Your task to perform on an android device: What's on my calendar today? Image 0: 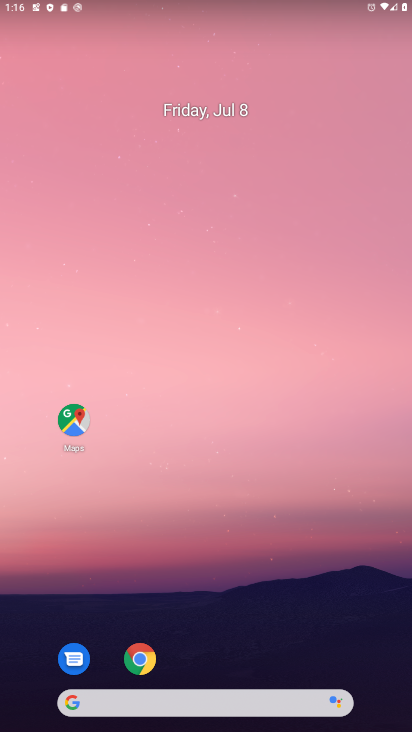
Step 0: drag from (275, 575) to (207, 226)
Your task to perform on an android device: What's on my calendar today? Image 1: 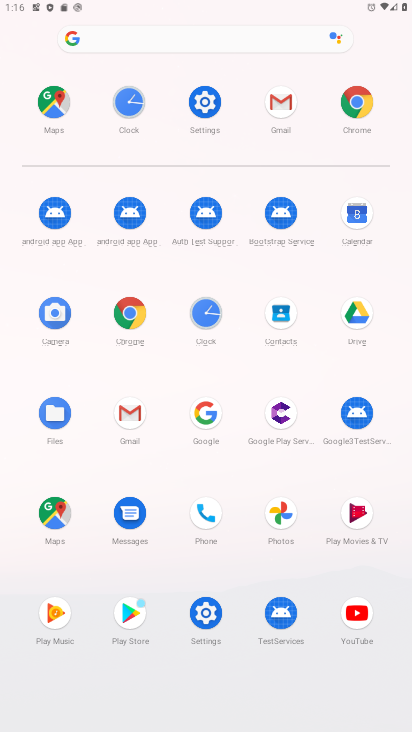
Step 1: click (352, 214)
Your task to perform on an android device: What's on my calendar today? Image 2: 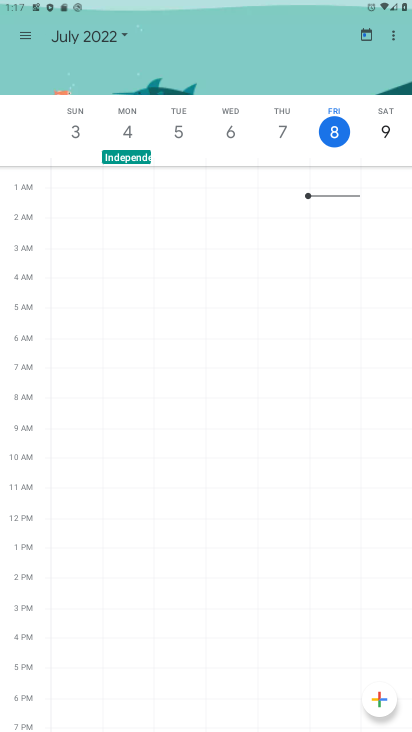
Step 2: click (341, 135)
Your task to perform on an android device: What's on my calendar today? Image 3: 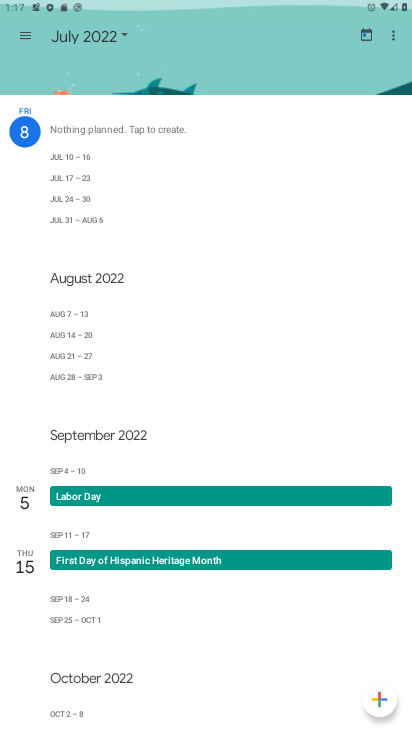
Step 3: task complete